Your task to perform on an android device: What's the weather? Image 0: 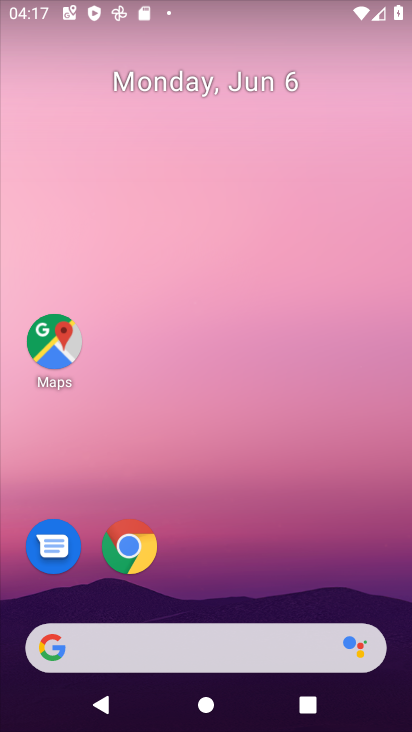
Step 0: drag from (278, 583) to (274, 121)
Your task to perform on an android device: What's the weather? Image 1: 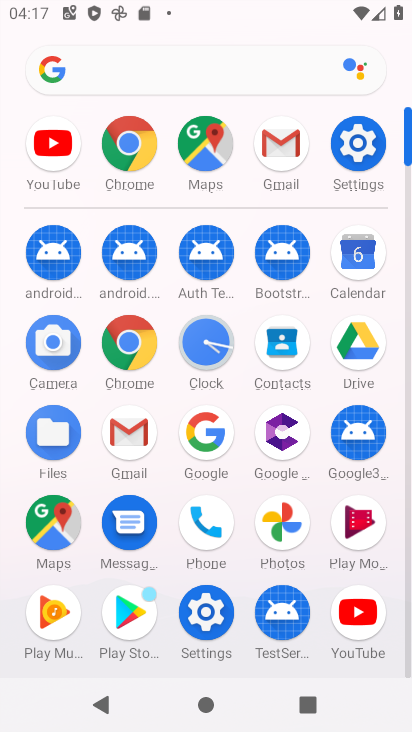
Step 1: click (189, 79)
Your task to perform on an android device: What's the weather? Image 2: 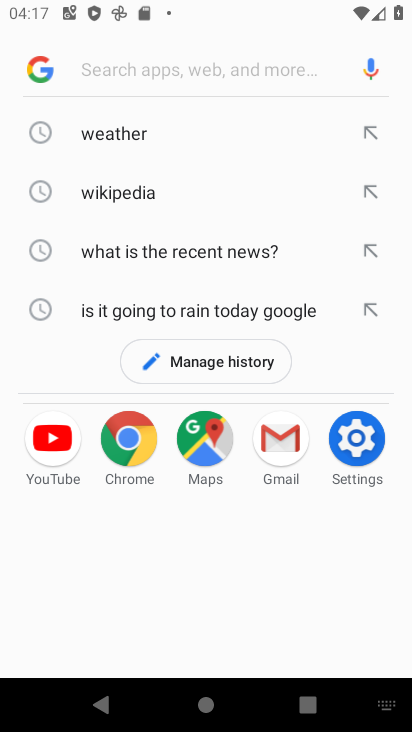
Step 2: click (169, 139)
Your task to perform on an android device: What's the weather? Image 3: 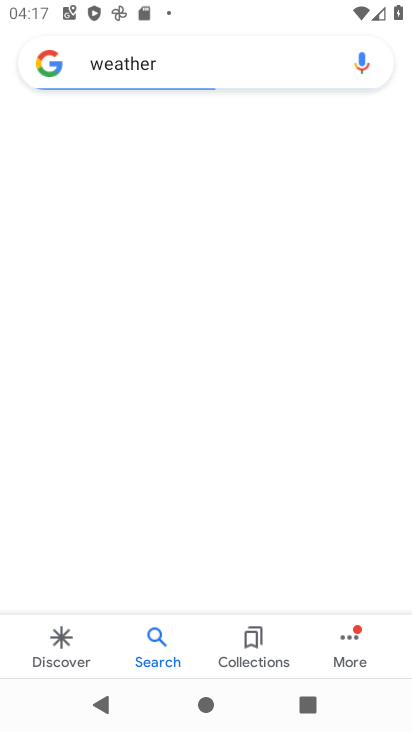
Step 3: task complete